Your task to perform on an android device: turn notification dots on Image 0: 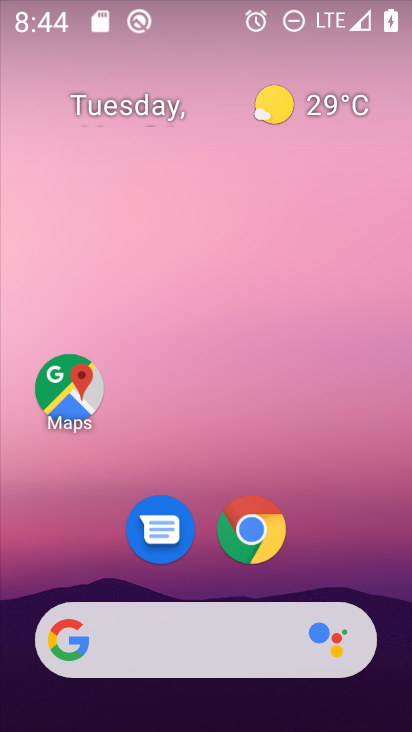
Step 0: drag from (402, 619) to (303, 110)
Your task to perform on an android device: turn notification dots on Image 1: 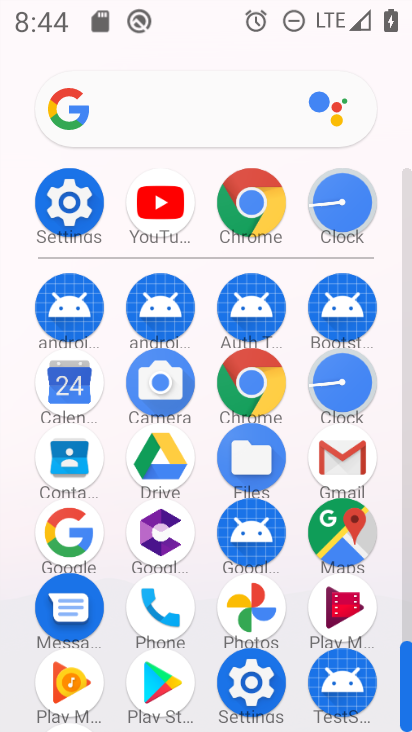
Step 1: click (81, 211)
Your task to perform on an android device: turn notification dots on Image 2: 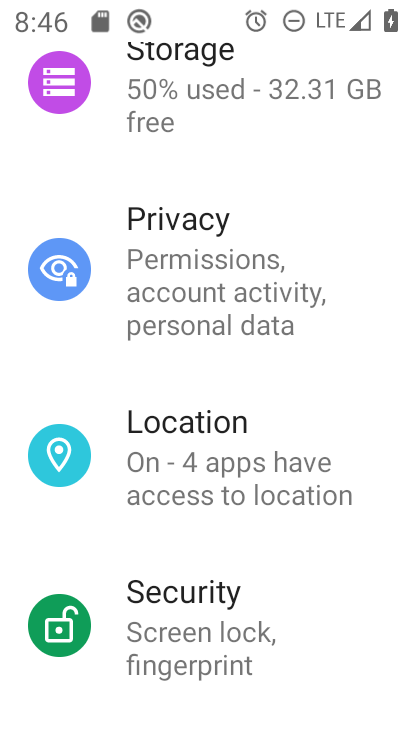
Step 2: drag from (222, 210) to (221, 623)
Your task to perform on an android device: turn notification dots on Image 3: 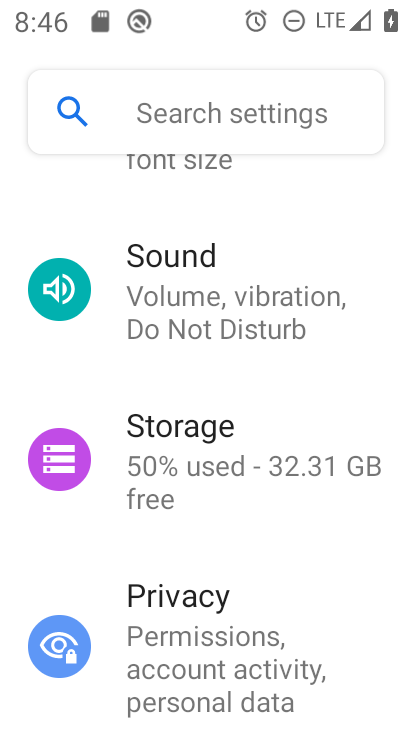
Step 3: drag from (185, 249) to (217, 658)
Your task to perform on an android device: turn notification dots on Image 4: 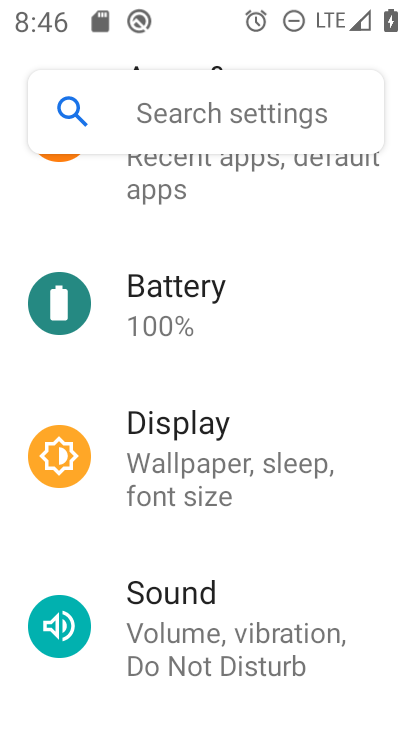
Step 4: drag from (169, 251) to (188, 647)
Your task to perform on an android device: turn notification dots on Image 5: 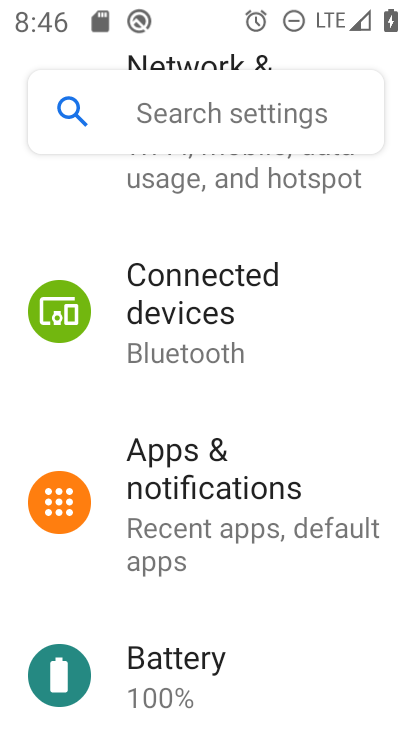
Step 5: click (190, 509)
Your task to perform on an android device: turn notification dots on Image 6: 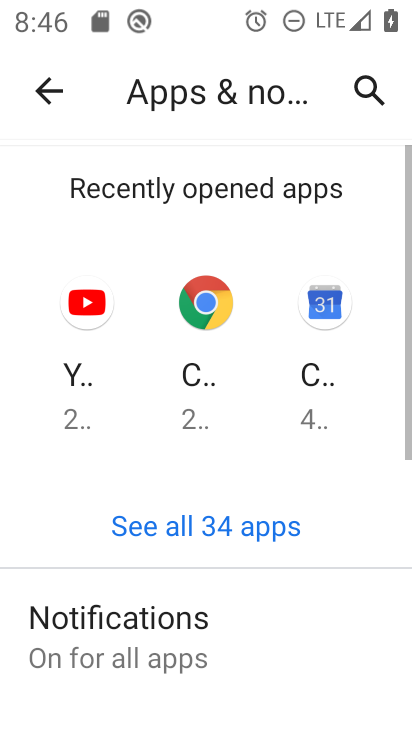
Step 6: click (168, 636)
Your task to perform on an android device: turn notification dots on Image 7: 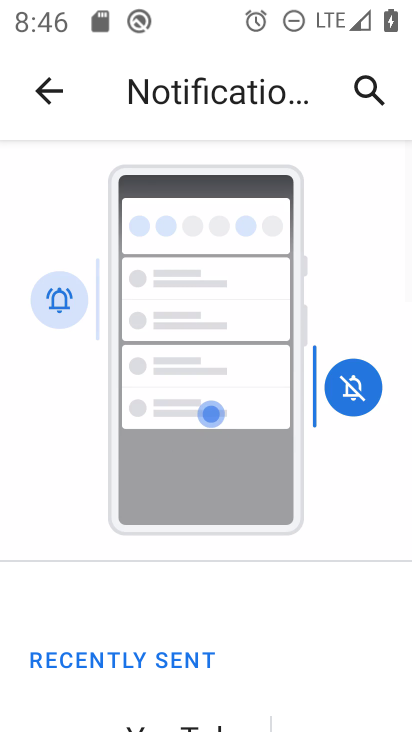
Step 7: drag from (161, 633) to (223, 39)
Your task to perform on an android device: turn notification dots on Image 8: 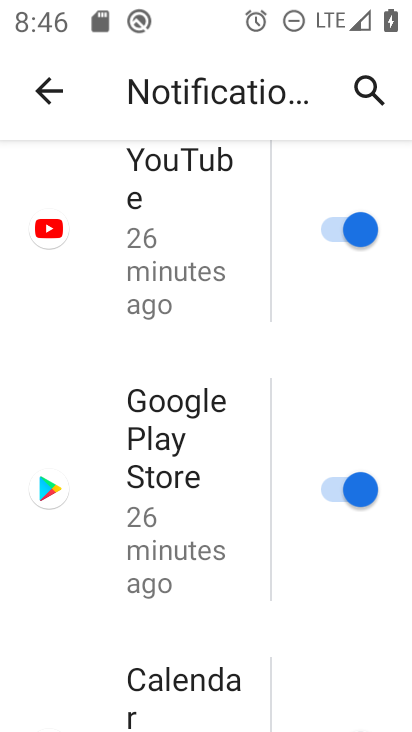
Step 8: drag from (177, 645) to (283, 96)
Your task to perform on an android device: turn notification dots on Image 9: 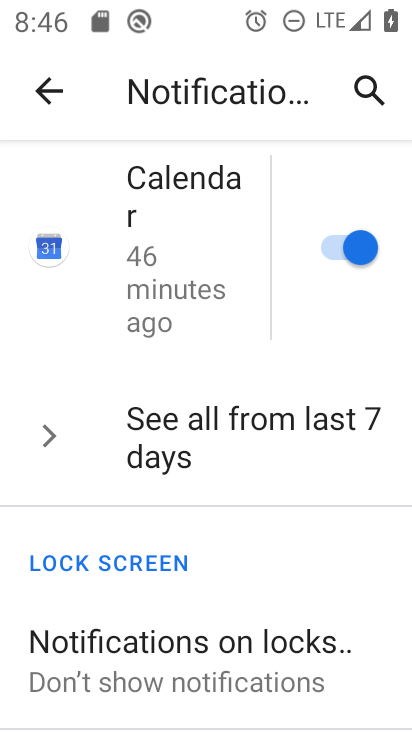
Step 9: drag from (186, 689) to (243, 232)
Your task to perform on an android device: turn notification dots on Image 10: 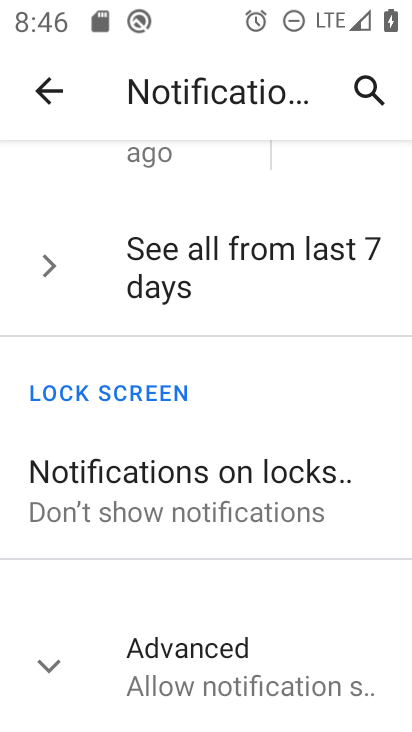
Step 10: click (179, 661)
Your task to perform on an android device: turn notification dots on Image 11: 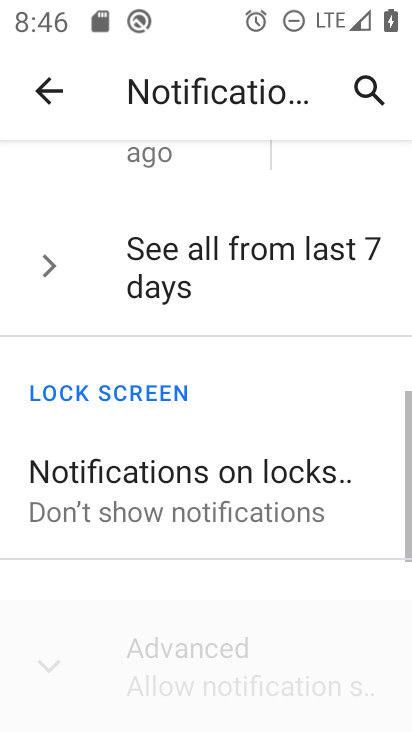
Step 11: drag from (204, 661) to (273, 216)
Your task to perform on an android device: turn notification dots on Image 12: 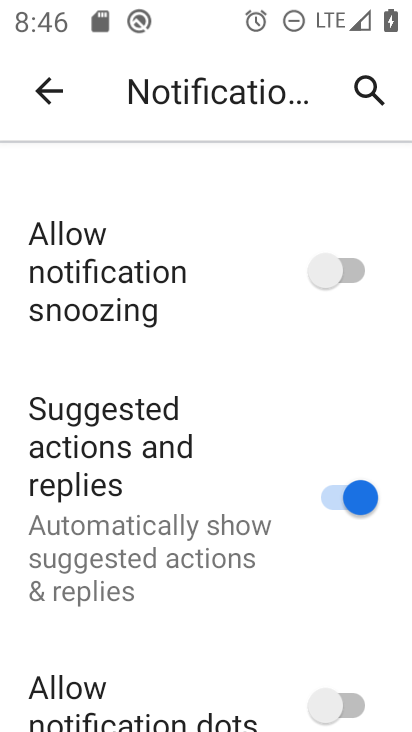
Step 12: click (261, 679)
Your task to perform on an android device: turn notification dots on Image 13: 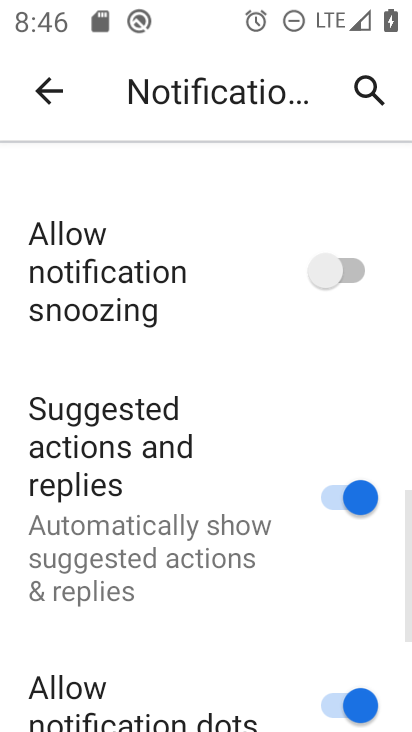
Step 13: task complete